Your task to perform on an android device: check data usage Image 0: 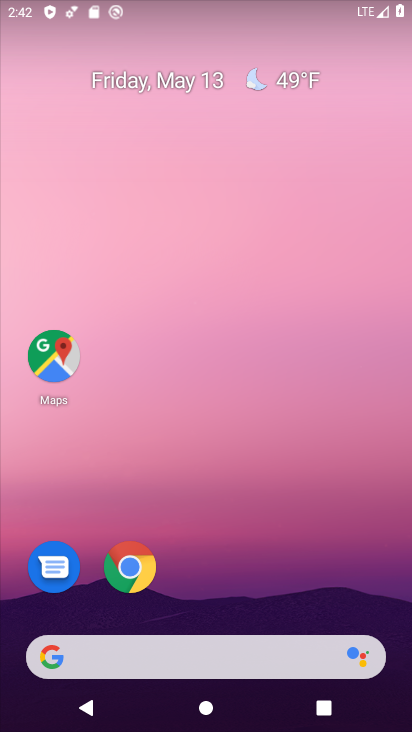
Step 0: drag from (237, 637) to (210, 55)
Your task to perform on an android device: check data usage Image 1: 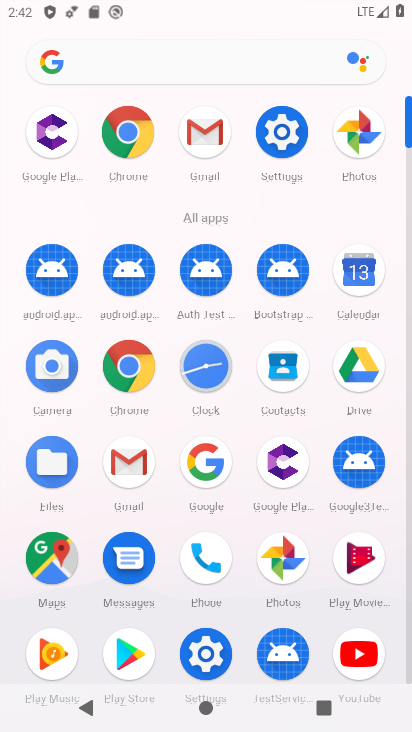
Step 1: click (297, 133)
Your task to perform on an android device: check data usage Image 2: 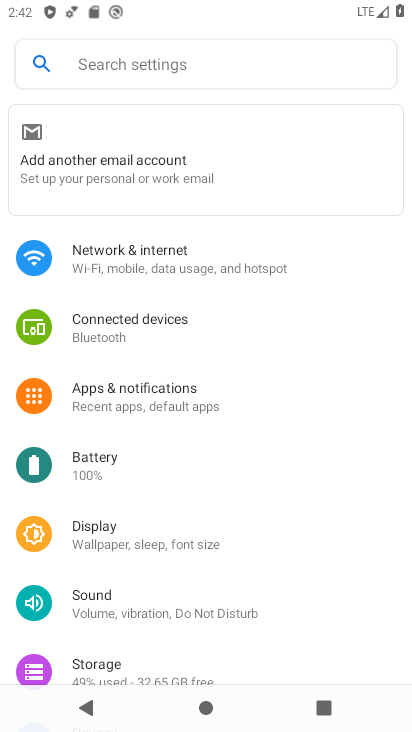
Step 2: click (162, 242)
Your task to perform on an android device: check data usage Image 3: 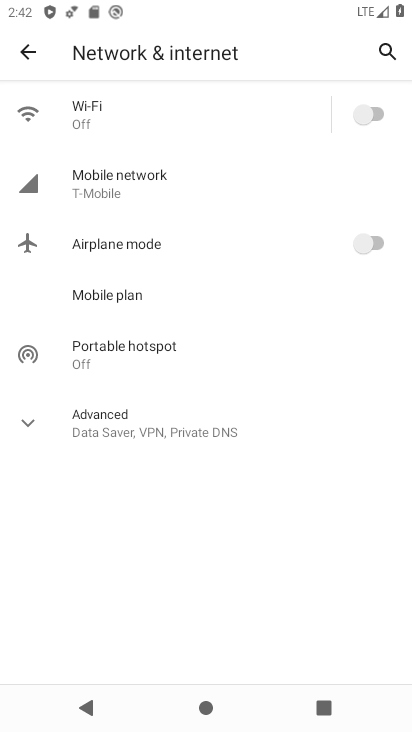
Step 3: click (95, 186)
Your task to perform on an android device: check data usage Image 4: 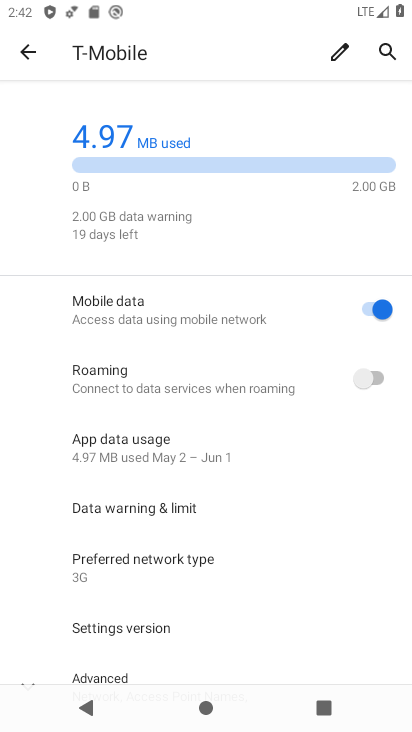
Step 4: task complete